Your task to perform on an android device: What's on my calendar today? Image 0: 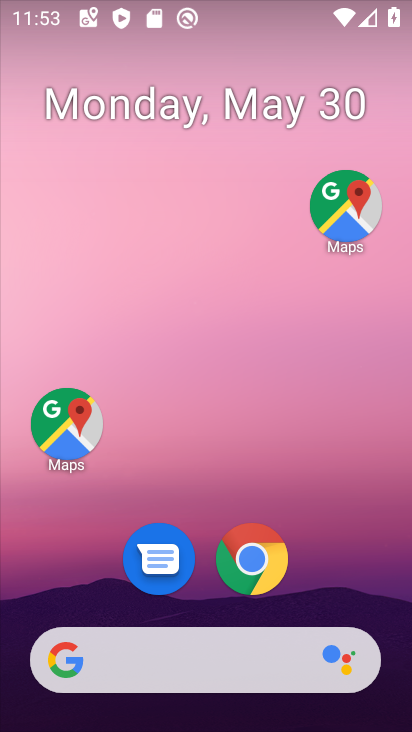
Step 0: drag from (364, 555) to (328, 117)
Your task to perform on an android device: What's on my calendar today? Image 1: 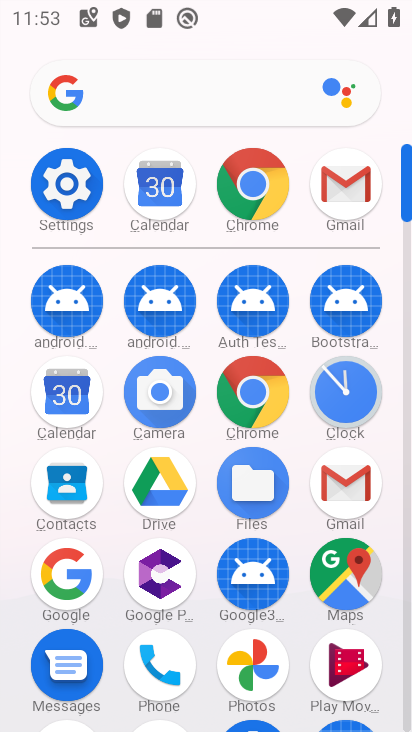
Step 1: click (65, 404)
Your task to perform on an android device: What's on my calendar today? Image 2: 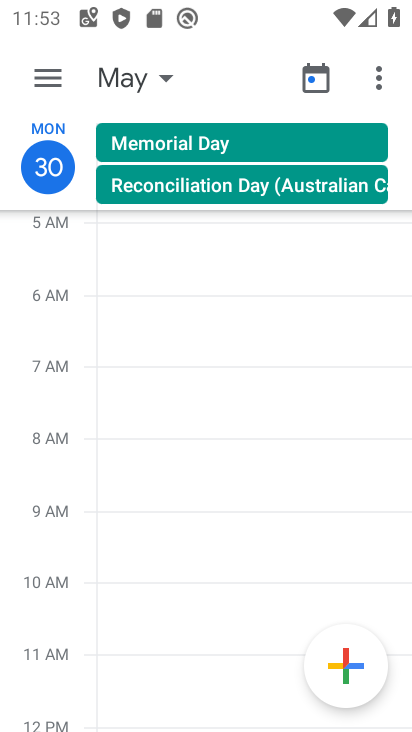
Step 2: task complete